Your task to perform on an android device: refresh tabs in the chrome app Image 0: 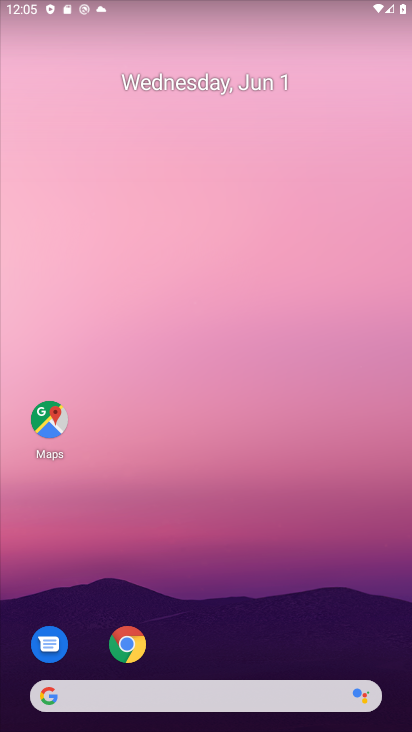
Step 0: drag from (347, 595) to (346, 276)
Your task to perform on an android device: refresh tabs in the chrome app Image 1: 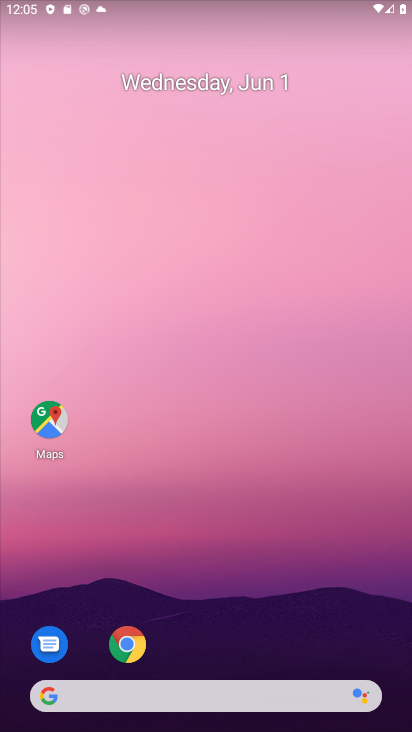
Step 1: drag from (361, 585) to (342, 152)
Your task to perform on an android device: refresh tabs in the chrome app Image 2: 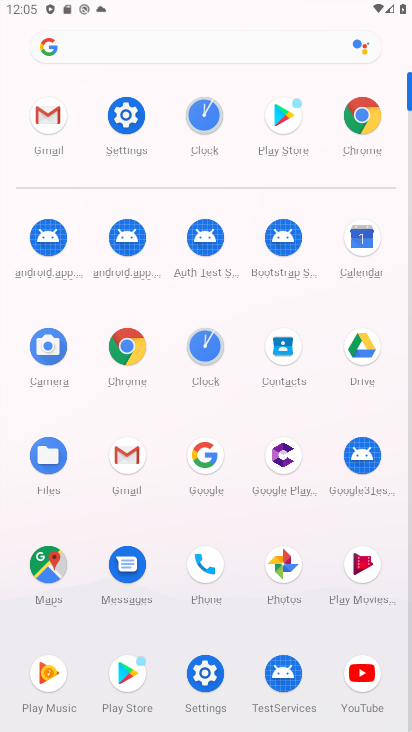
Step 2: click (145, 353)
Your task to perform on an android device: refresh tabs in the chrome app Image 3: 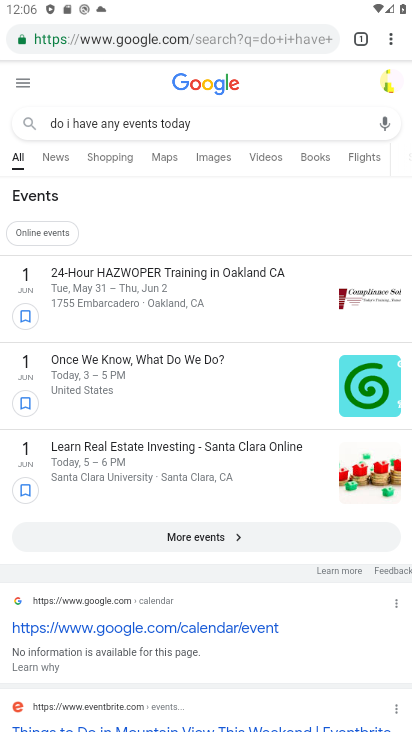
Step 3: click (399, 47)
Your task to perform on an android device: refresh tabs in the chrome app Image 4: 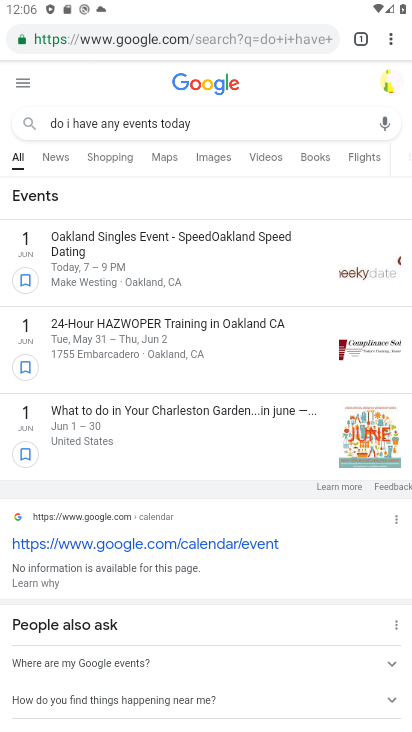
Step 4: task complete